Your task to perform on an android device: Open Google Chrome and open the bookmarks view Image 0: 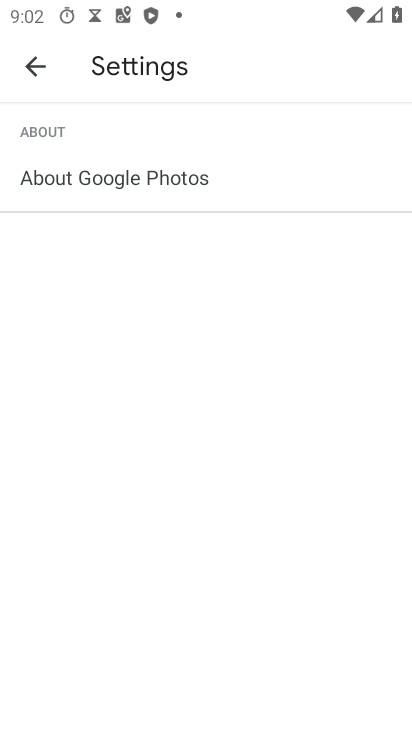
Step 0: press home button
Your task to perform on an android device: Open Google Chrome and open the bookmarks view Image 1: 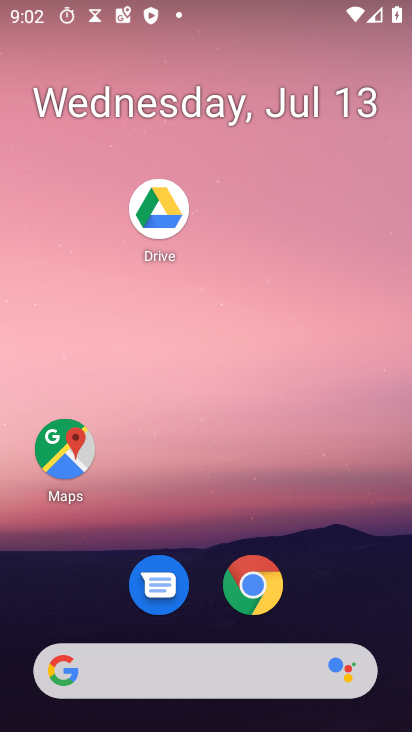
Step 1: click (245, 585)
Your task to perform on an android device: Open Google Chrome and open the bookmarks view Image 2: 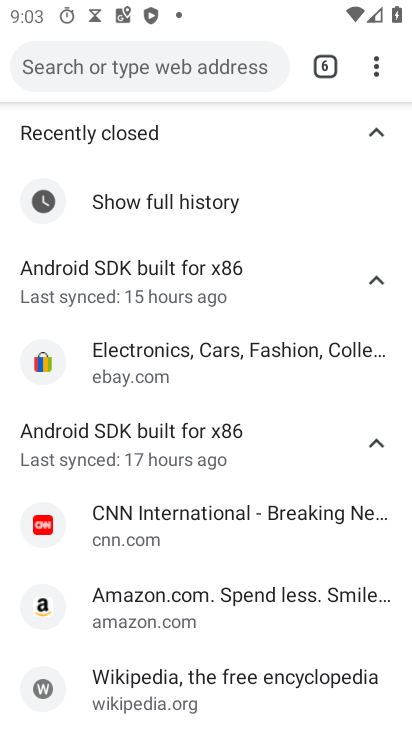
Step 2: task complete